Your task to perform on an android device: open chrome and create a bookmark for the current page Image 0: 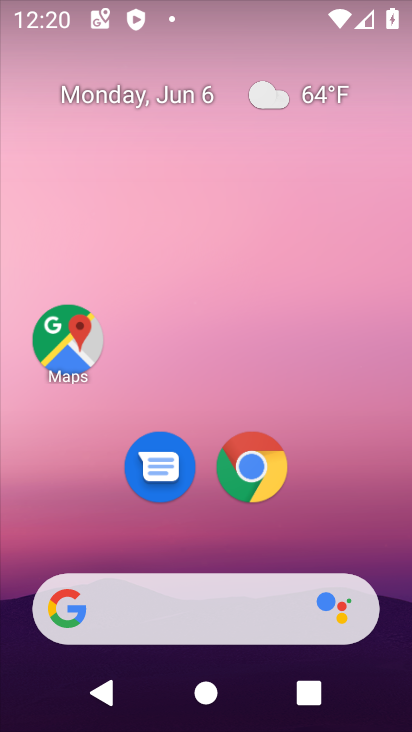
Step 0: click (254, 468)
Your task to perform on an android device: open chrome and create a bookmark for the current page Image 1: 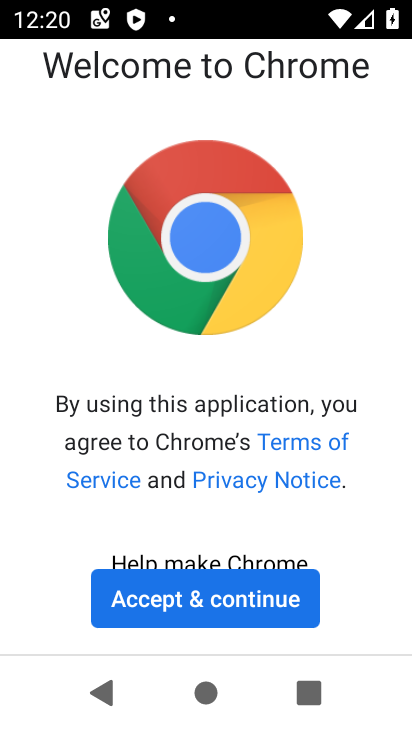
Step 1: click (247, 598)
Your task to perform on an android device: open chrome and create a bookmark for the current page Image 2: 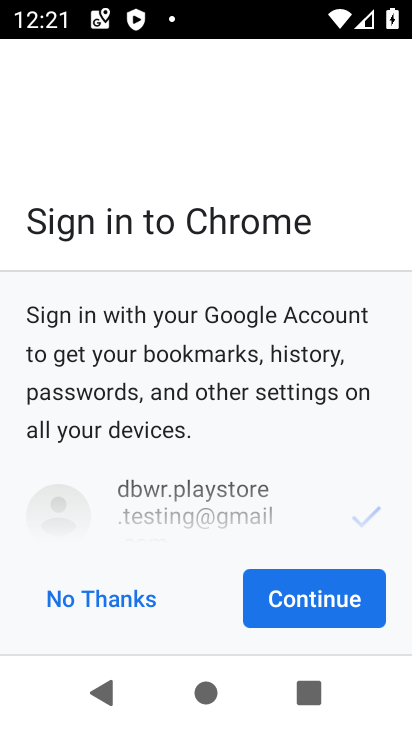
Step 2: click (298, 598)
Your task to perform on an android device: open chrome and create a bookmark for the current page Image 3: 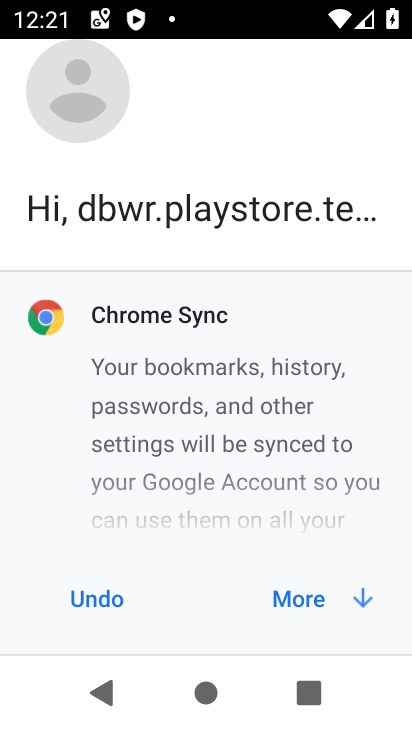
Step 3: click (298, 598)
Your task to perform on an android device: open chrome and create a bookmark for the current page Image 4: 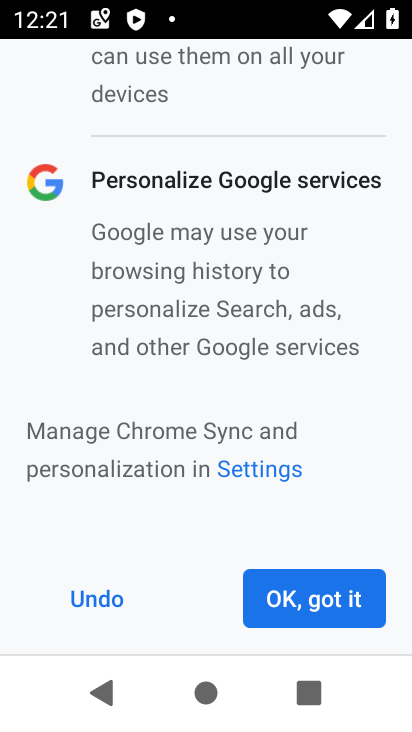
Step 4: click (305, 604)
Your task to perform on an android device: open chrome and create a bookmark for the current page Image 5: 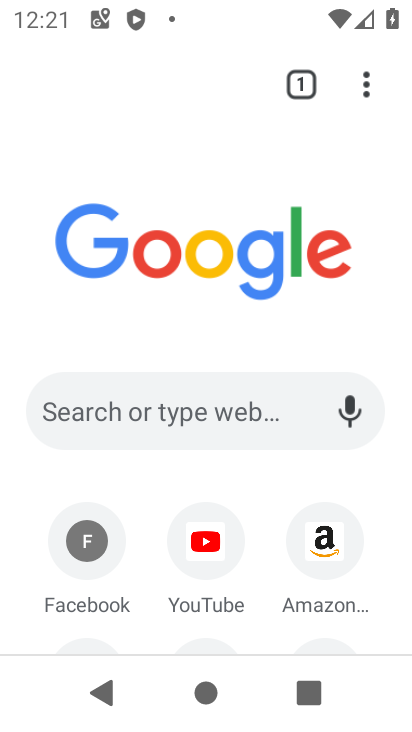
Step 5: click (366, 81)
Your task to perform on an android device: open chrome and create a bookmark for the current page Image 6: 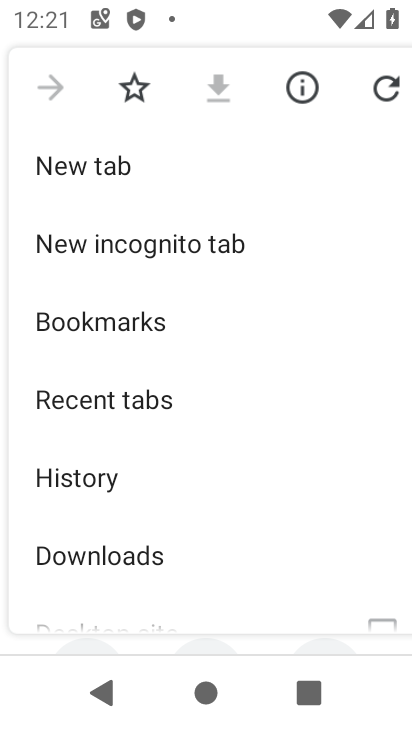
Step 6: click (131, 91)
Your task to perform on an android device: open chrome and create a bookmark for the current page Image 7: 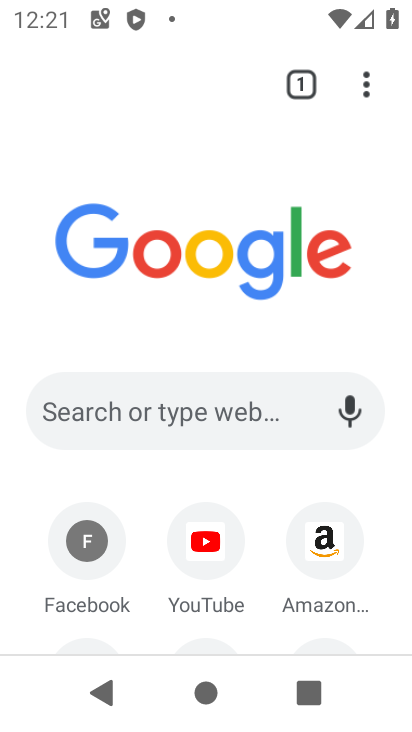
Step 7: task complete